Your task to perform on an android device: Open the map Image 0: 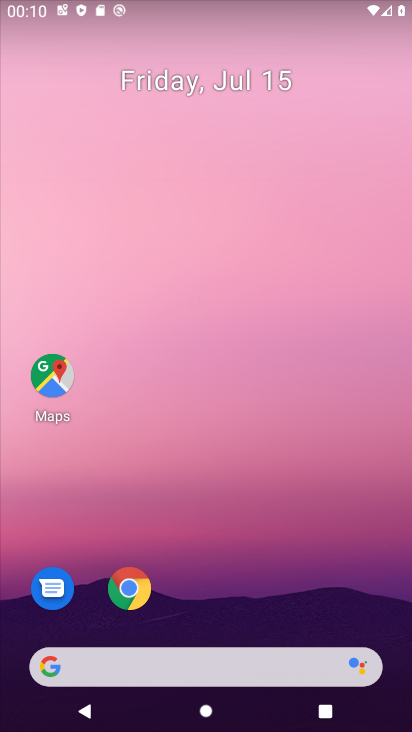
Step 0: click (56, 378)
Your task to perform on an android device: Open the map Image 1: 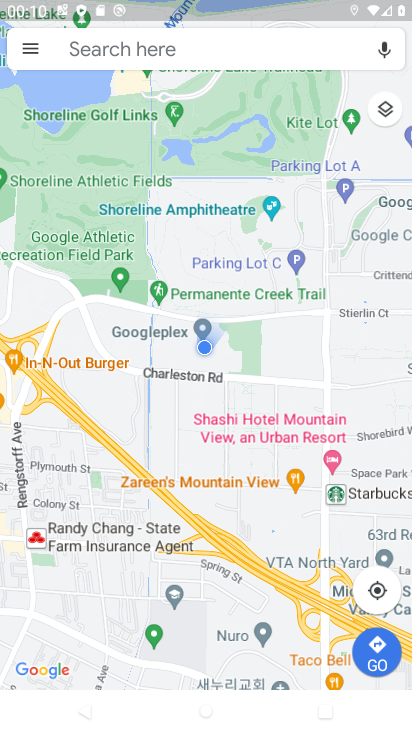
Step 1: task complete